Your task to perform on an android device: toggle notifications settings in the gmail app Image 0: 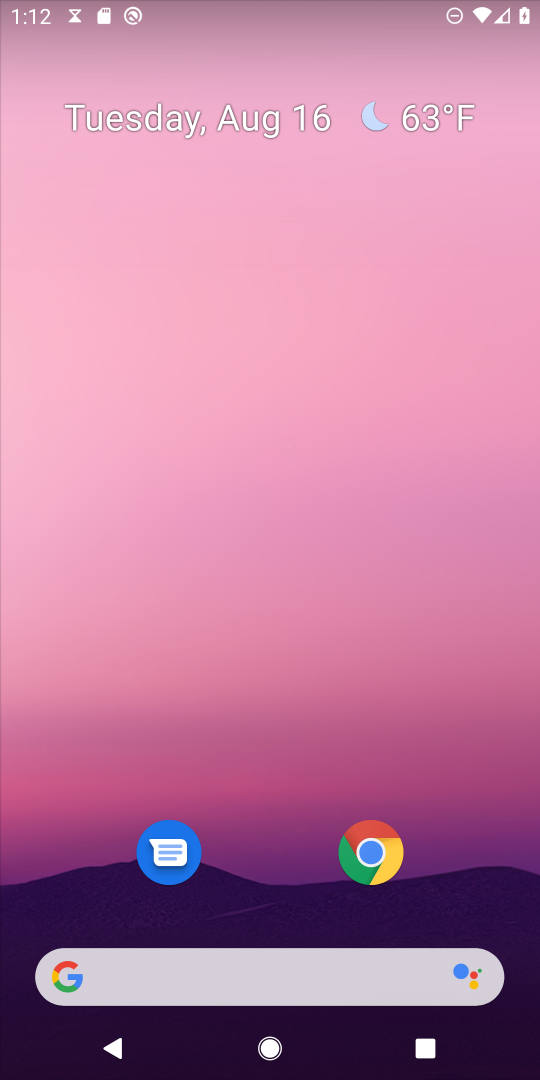
Step 0: drag from (201, 931) to (345, 196)
Your task to perform on an android device: toggle notifications settings in the gmail app Image 1: 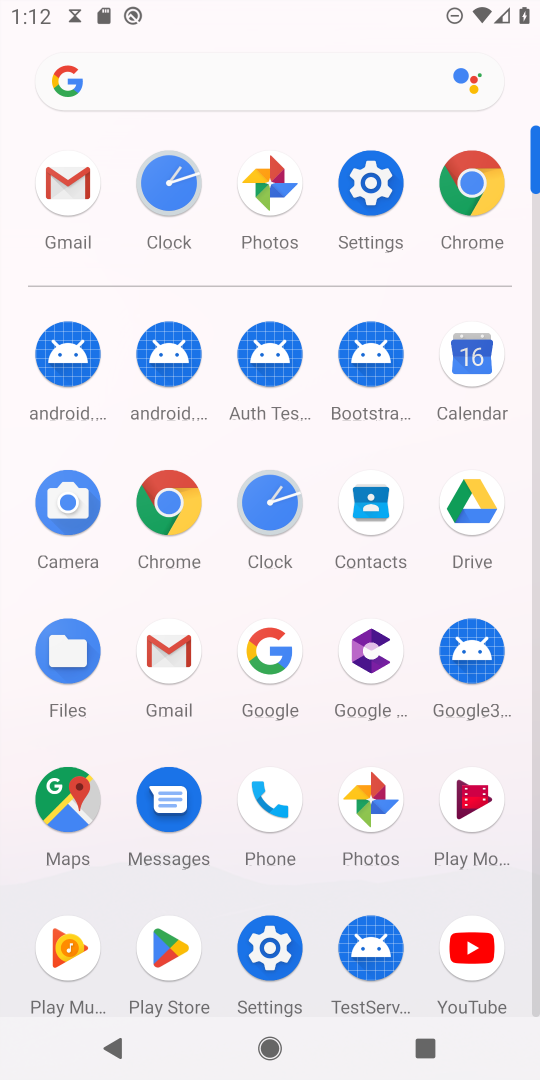
Step 1: click (33, 187)
Your task to perform on an android device: toggle notifications settings in the gmail app Image 2: 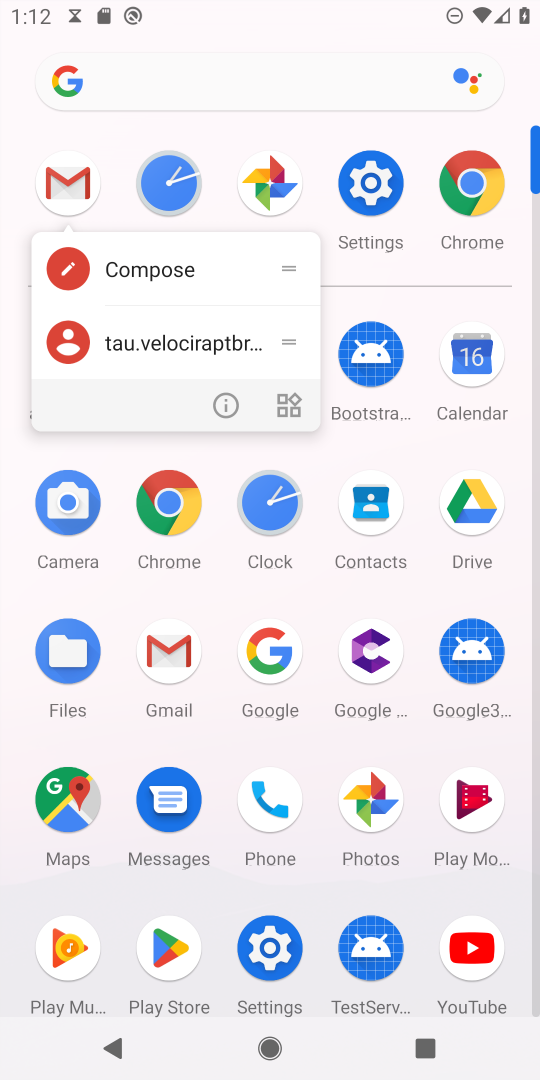
Step 2: click (230, 409)
Your task to perform on an android device: toggle notifications settings in the gmail app Image 3: 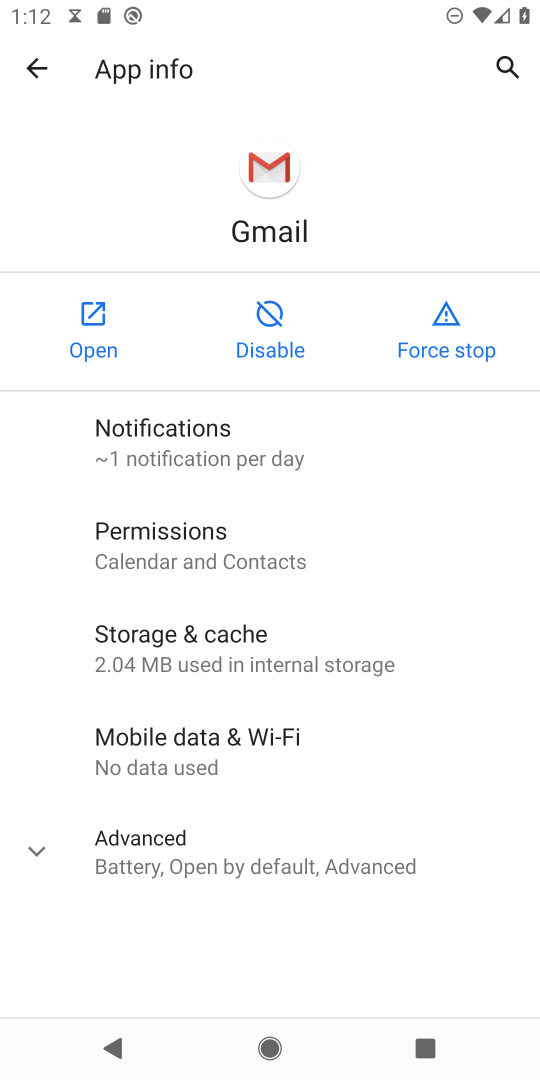
Step 3: click (253, 443)
Your task to perform on an android device: toggle notifications settings in the gmail app Image 4: 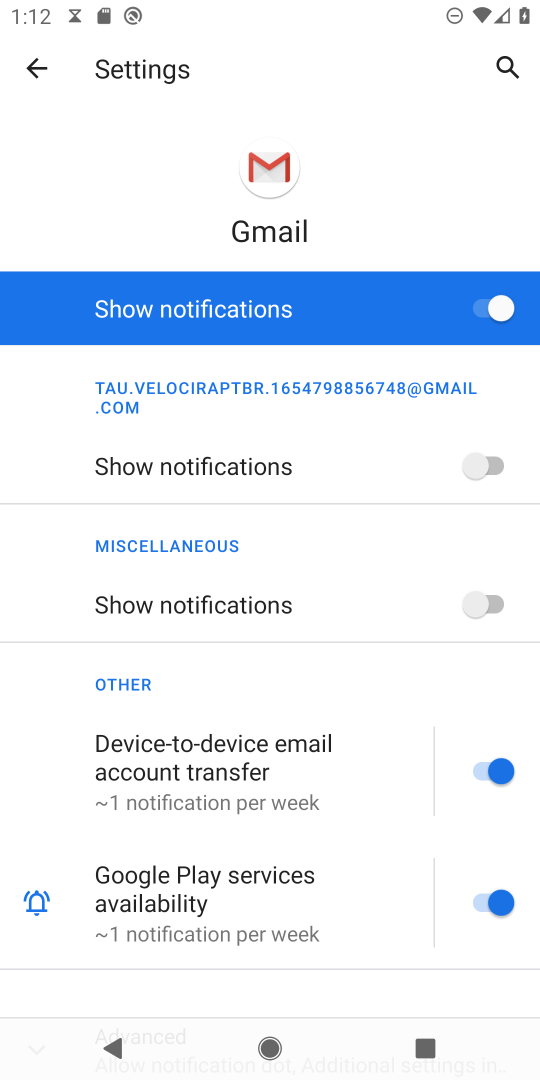
Step 4: click (497, 310)
Your task to perform on an android device: toggle notifications settings in the gmail app Image 5: 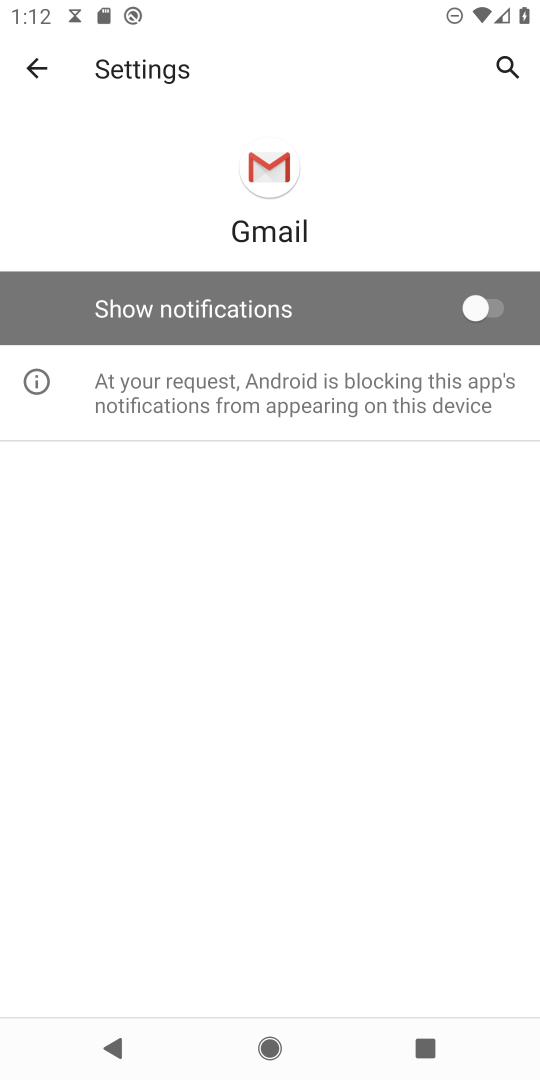
Step 5: task complete